Your task to perform on an android device: empty trash in the gmail app Image 0: 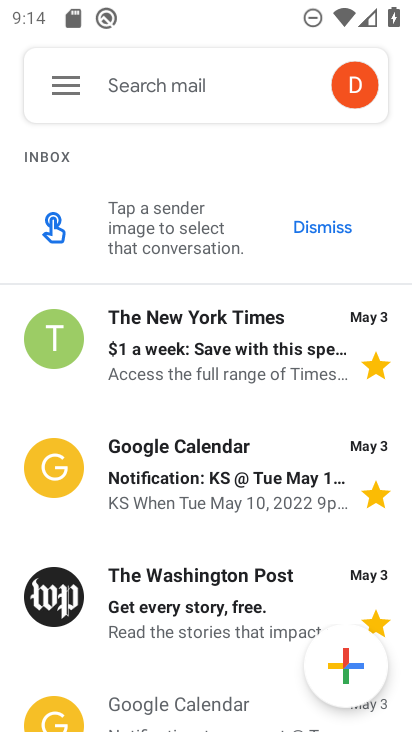
Step 0: click (68, 91)
Your task to perform on an android device: empty trash in the gmail app Image 1: 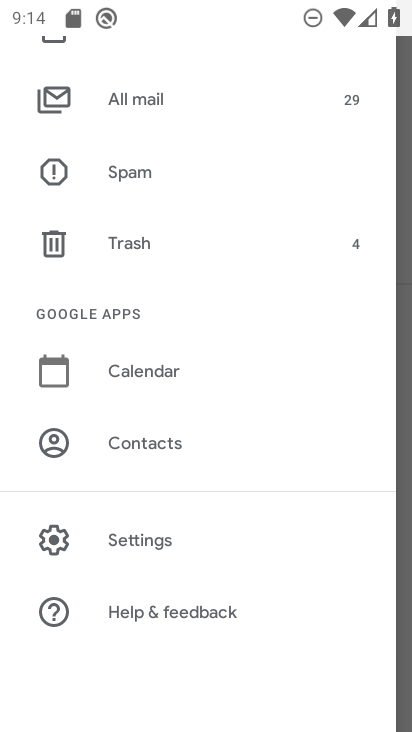
Step 1: click (89, 241)
Your task to perform on an android device: empty trash in the gmail app Image 2: 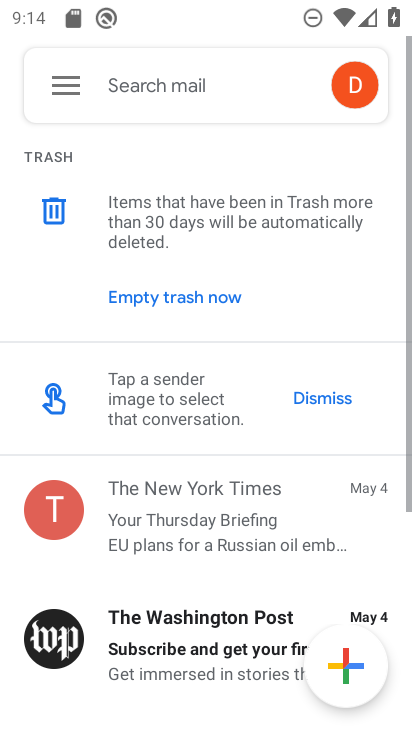
Step 2: click (139, 297)
Your task to perform on an android device: empty trash in the gmail app Image 3: 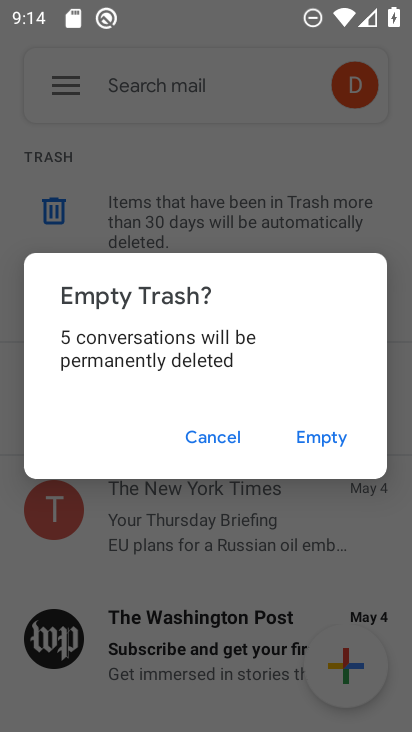
Step 3: click (313, 435)
Your task to perform on an android device: empty trash in the gmail app Image 4: 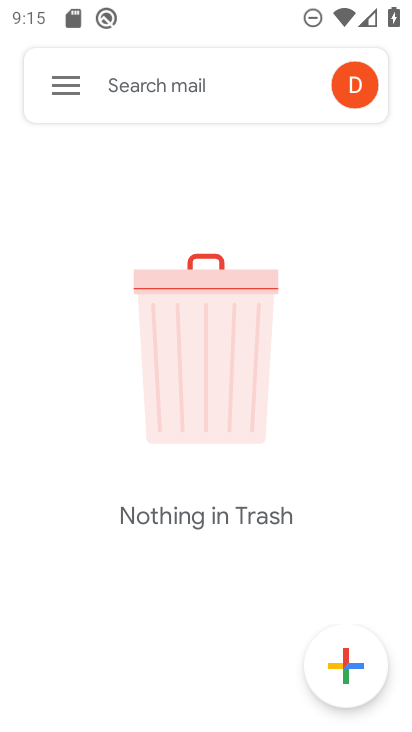
Step 4: task complete